Your task to perform on an android device: find which apps use the phone's location Image 0: 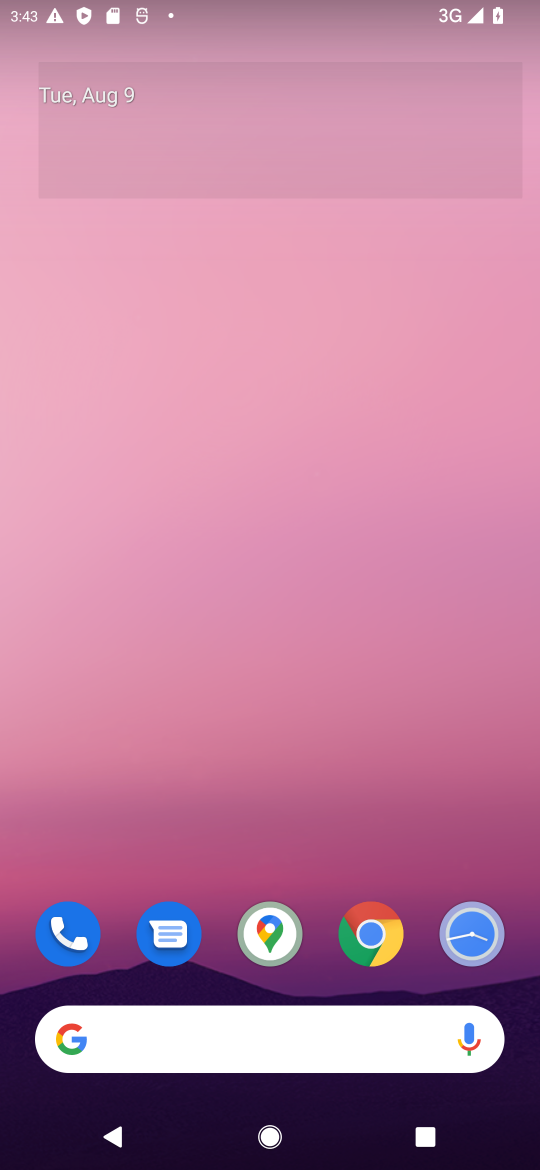
Step 0: drag from (308, 984) to (326, 39)
Your task to perform on an android device: find which apps use the phone's location Image 1: 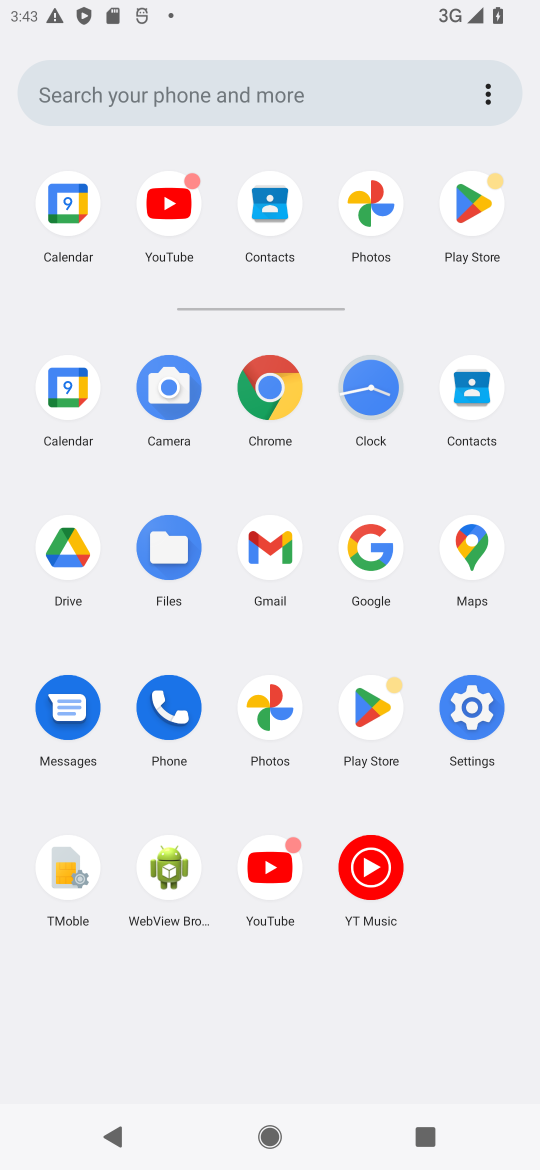
Step 1: click (481, 690)
Your task to perform on an android device: find which apps use the phone's location Image 2: 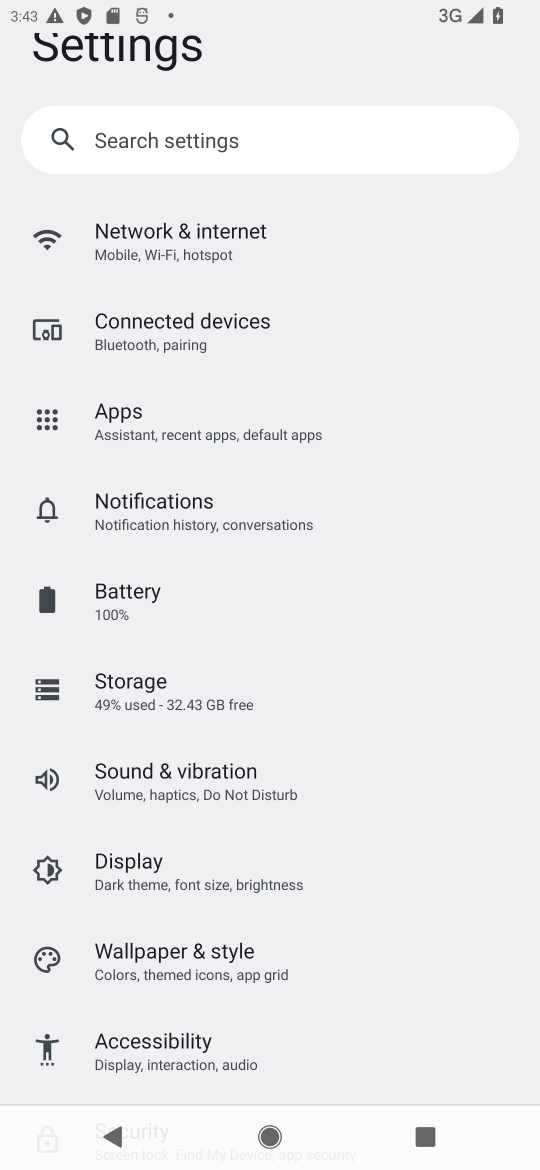
Step 2: drag from (302, 1020) to (287, 644)
Your task to perform on an android device: find which apps use the phone's location Image 3: 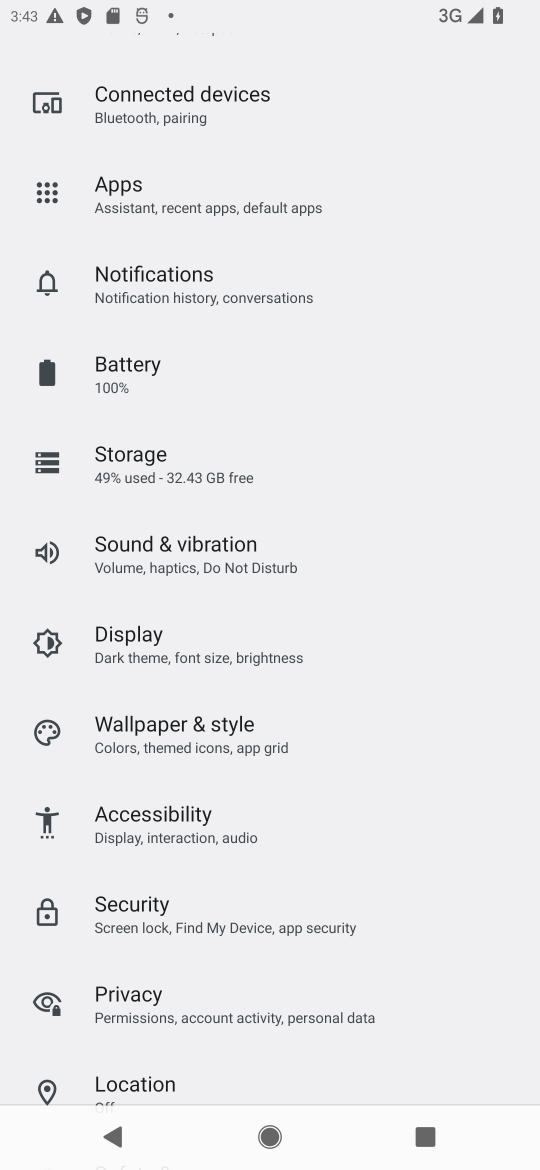
Step 3: click (169, 1102)
Your task to perform on an android device: find which apps use the phone's location Image 4: 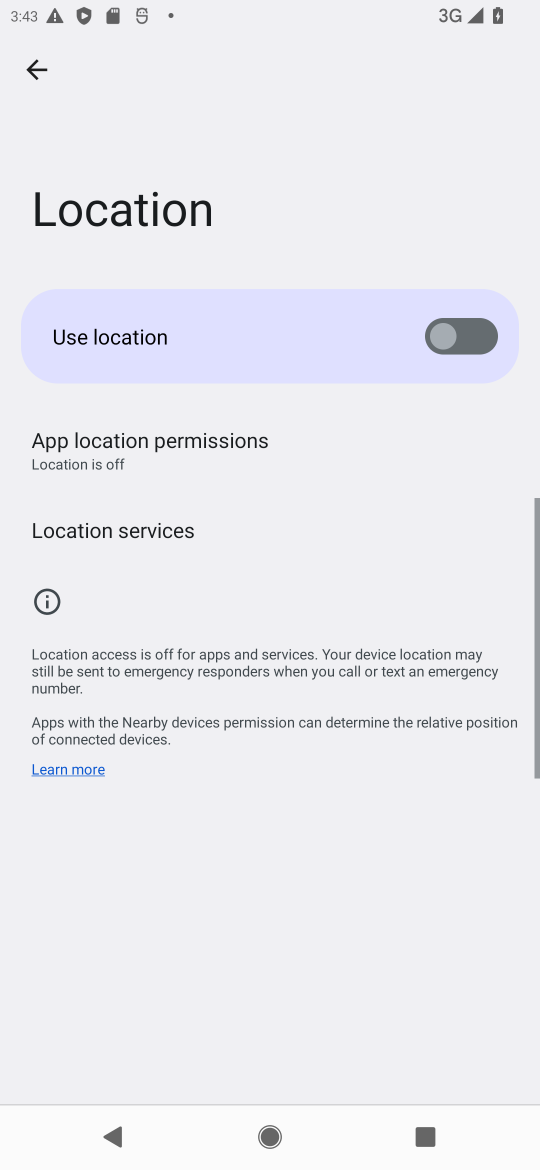
Step 4: task complete